Your task to perform on an android device: Open Android settings Image 0: 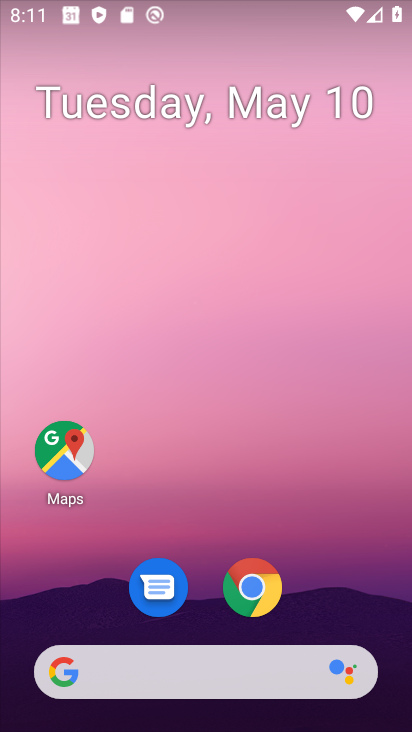
Step 0: drag from (350, 459) to (234, 45)
Your task to perform on an android device: Open Android settings Image 1: 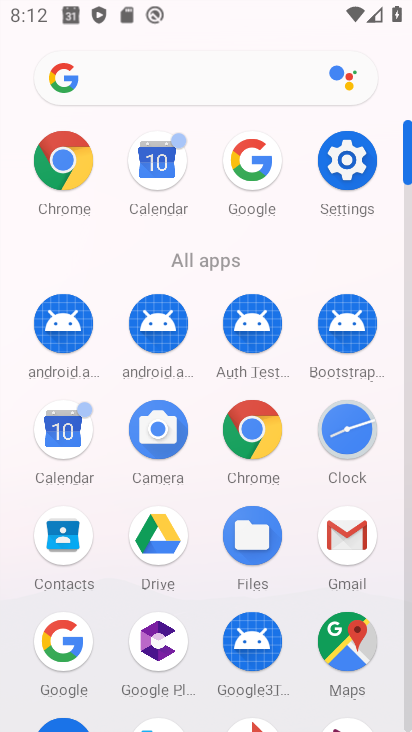
Step 1: click (354, 170)
Your task to perform on an android device: Open Android settings Image 2: 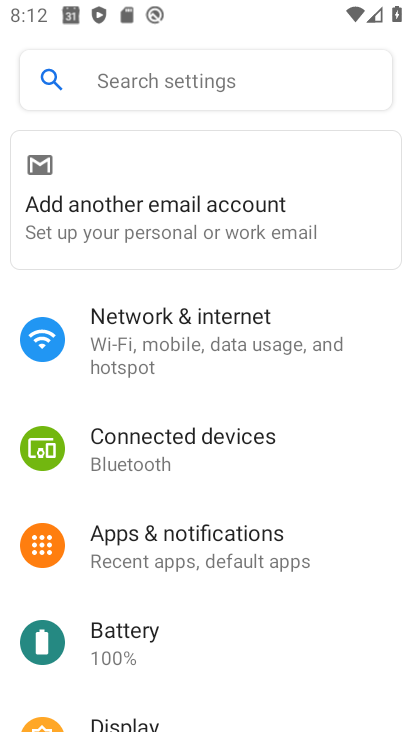
Step 2: drag from (267, 611) to (171, 237)
Your task to perform on an android device: Open Android settings Image 3: 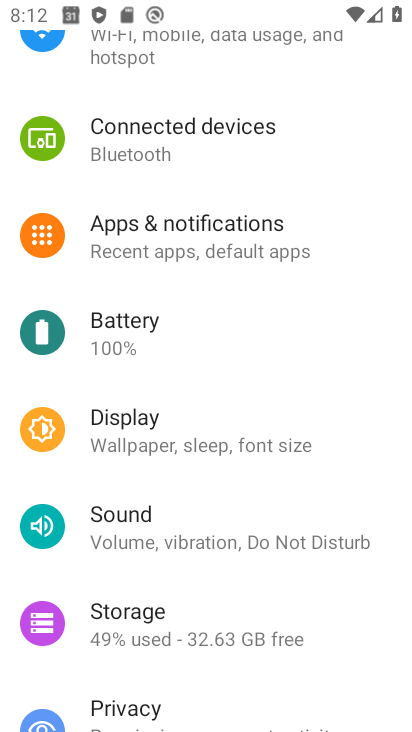
Step 3: drag from (218, 612) to (144, 187)
Your task to perform on an android device: Open Android settings Image 4: 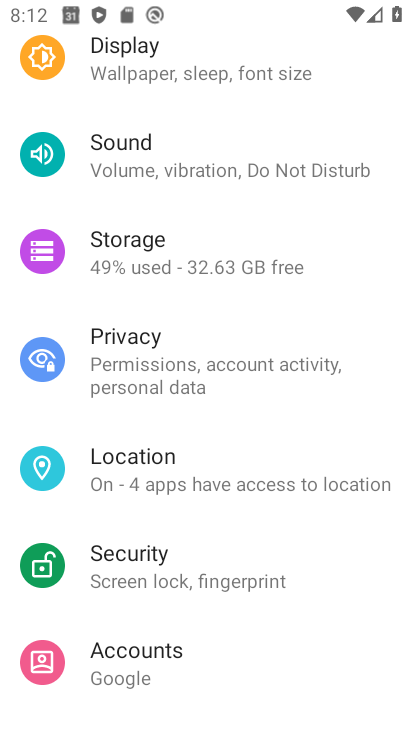
Step 4: drag from (190, 629) to (158, 211)
Your task to perform on an android device: Open Android settings Image 5: 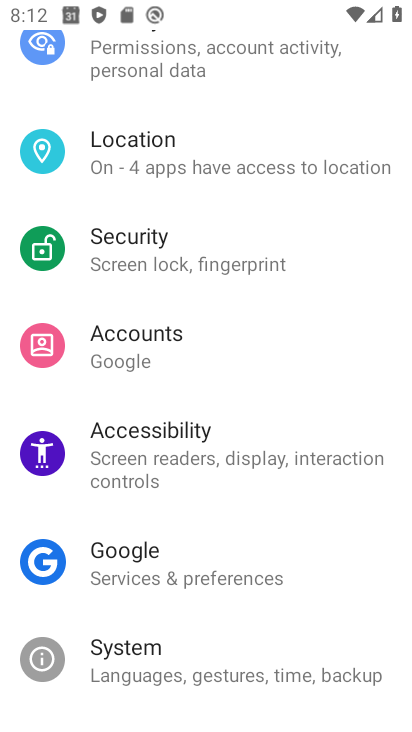
Step 5: drag from (149, 647) to (169, 323)
Your task to perform on an android device: Open Android settings Image 6: 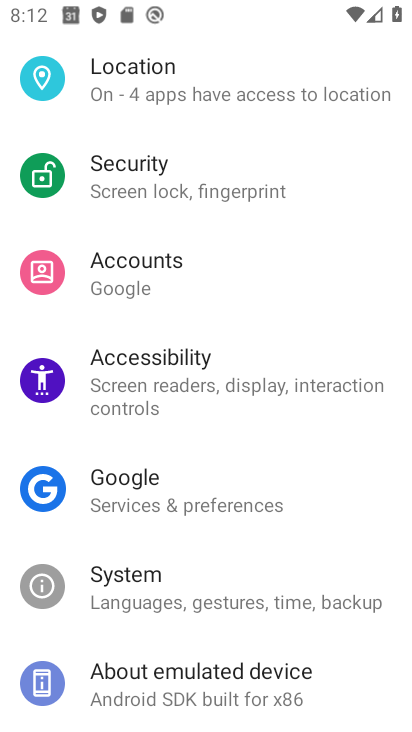
Step 6: click (143, 670)
Your task to perform on an android device: Open Android settings Image 7: 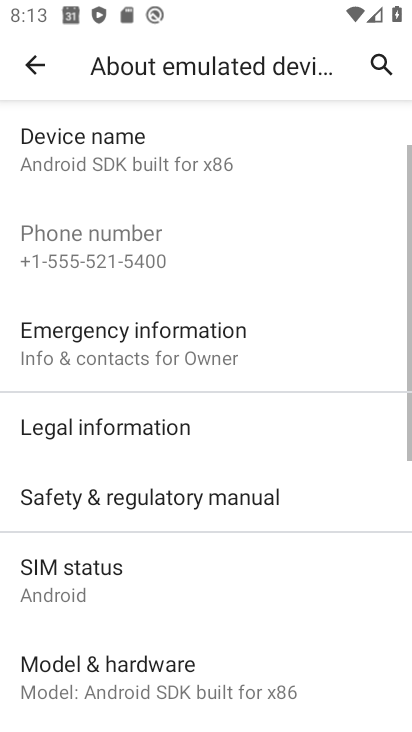
Step 7: task complete